Your task to perform on an android device: Open Google Chrome and open the bookmarks view Image 0: 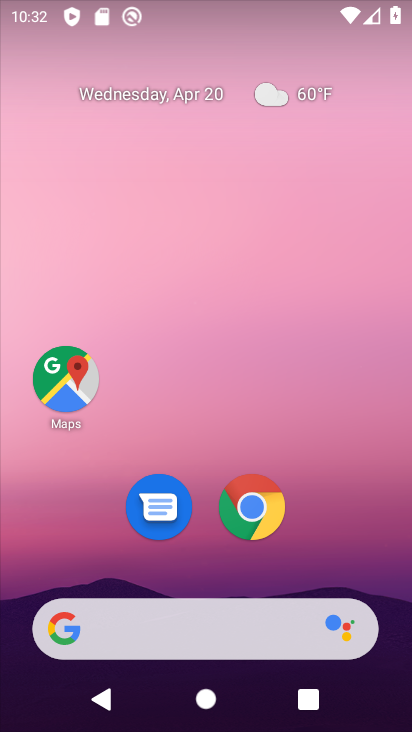
Step 0: click (264, 507)
Your task to perform on an android device: Open Google Chrome and open the bookmarks view Image 1: 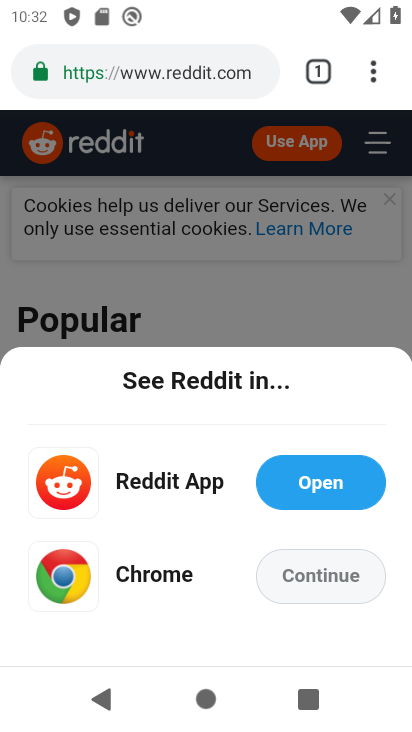
Step 1: click (374, 79)
Your task to perform on an android device: Open Google Chrome and open the bookmarks view Image 2: 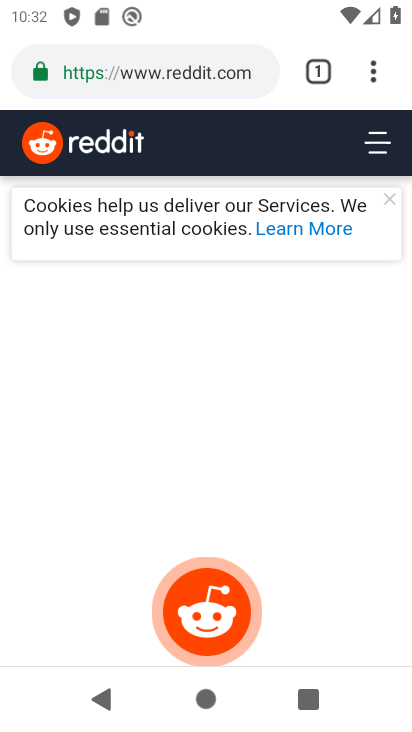
Step 2: click (374, 79)
Your task to perform on an android device: Open Google Chrome and open the bookmarks view Image 3: 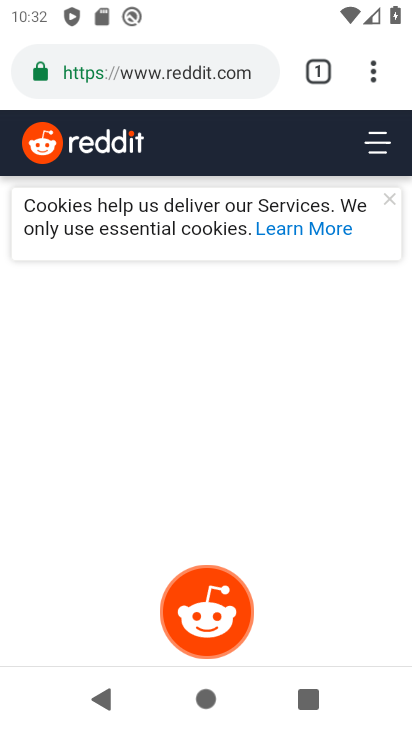
Step 3: click (376, 69)
Your task to perform on an android device: Open Google Chrome and open the bookmarks view Image 4: 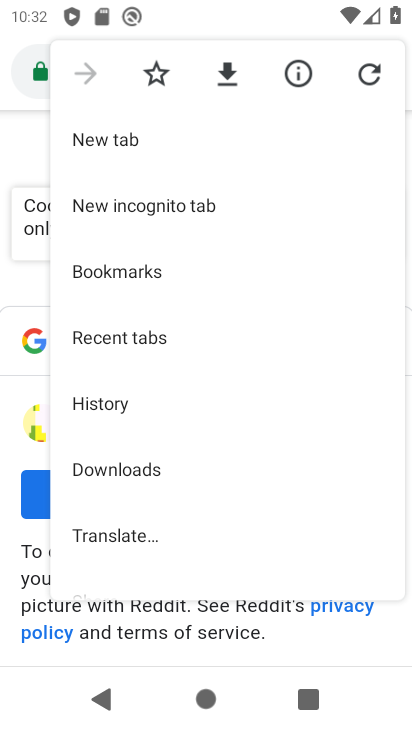
Step 4: click (134, 274)
Your task to perform on an android device: Open Google Chrome and open the bookmarks view Image 5: 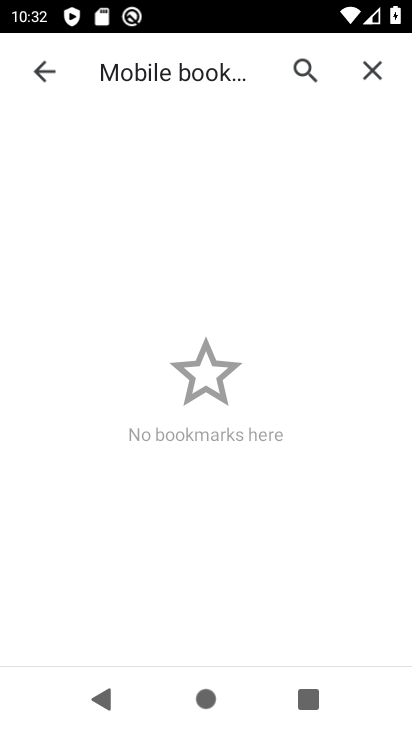
Step 5: task complete